Your task to perform on an android device: choose inbox layout in the gmail app Image 0: 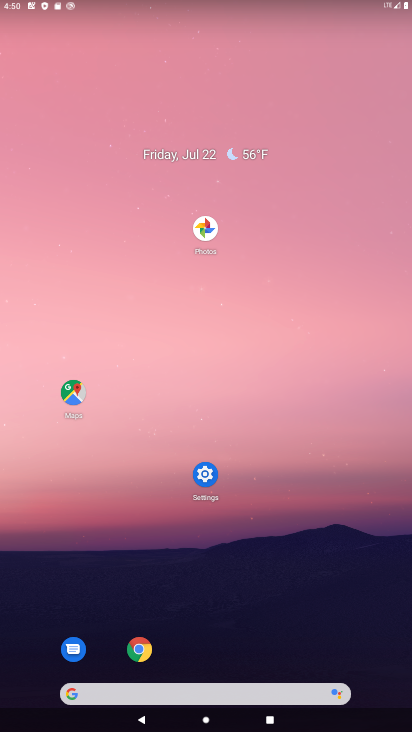
Step 0: drag from (264, 282) to (211, 151)
Your task to perform on an android device: choose inbox layout in the gmail app Image 1: 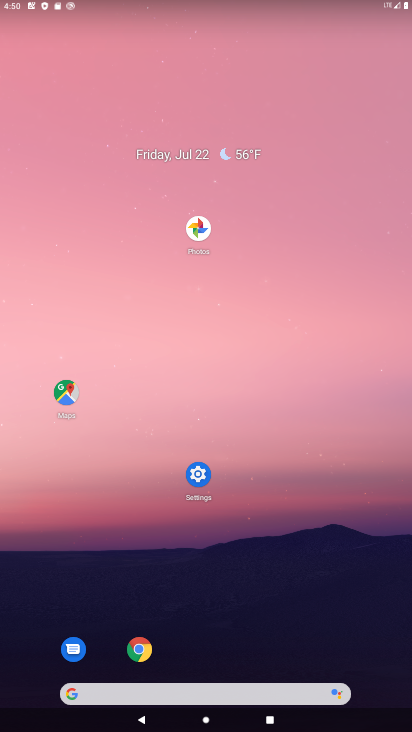
Step 1: drag from (218, 527) to (131, 45)
Your task to perform on an android device: choose inbox layout in the gmail app Image 2: 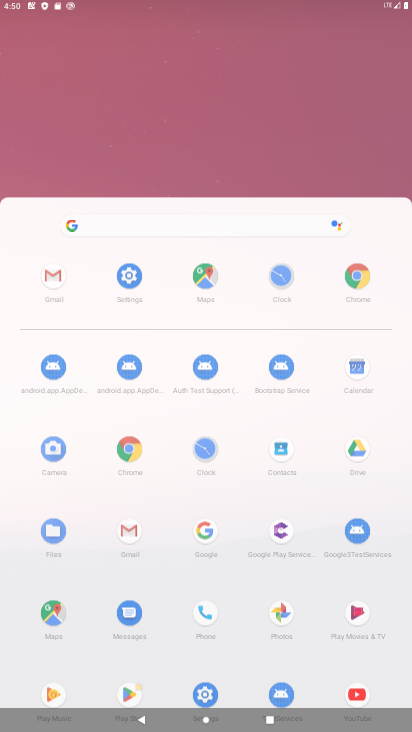
Step 2: drag from (206, 125) to (188, 1)
Your task to perform on an android device: choose inbox layout in the gmail app Image 3: 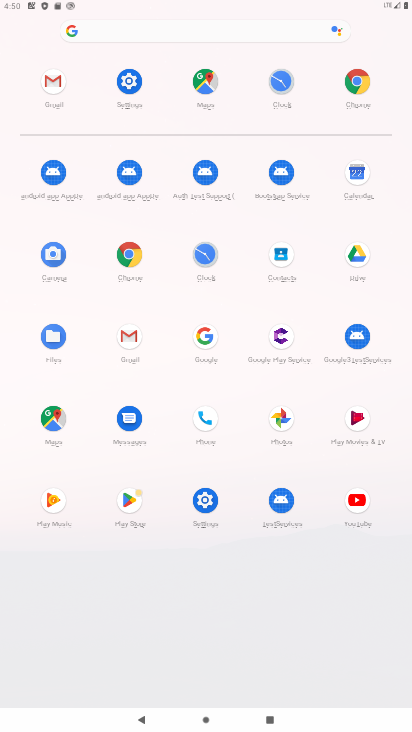
Step 3: drag from (246, 361) to (205, 5)
Your task to perform on an android device: choose inbox layout in the gmail app Image 4: 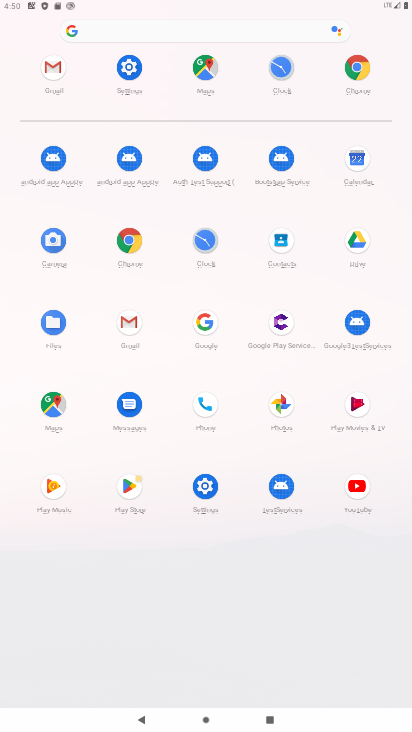
Step 4: drag from (262, 372) to (248, 15)
Your task to perform on an android device: choose inbox layout in the gmail app Image 5: 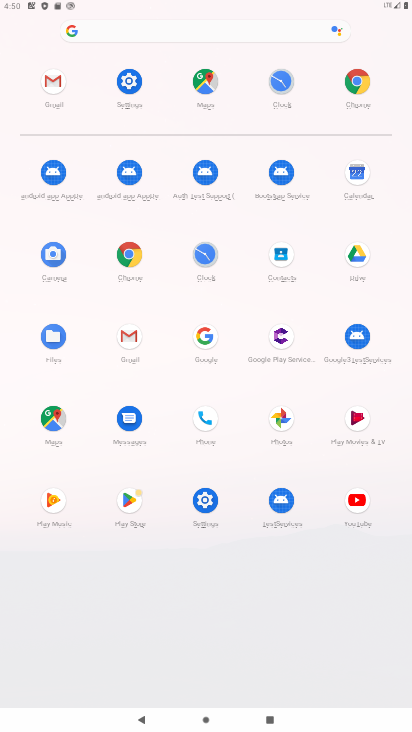
Step 5: click (129, 349)
Your task to perform on an android device: choose inbox layout in the gmail app Image 6: 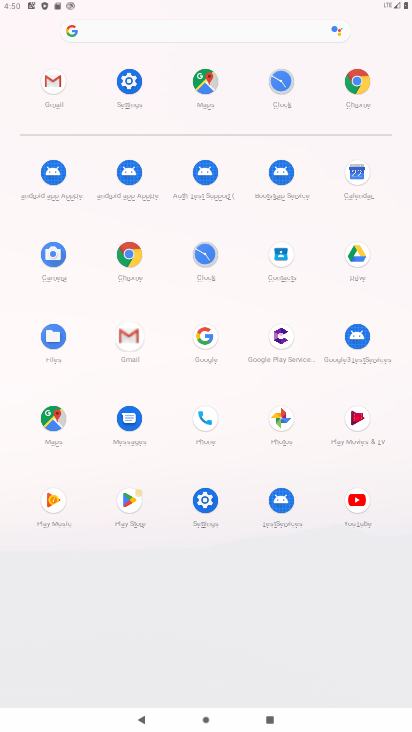
Step 6: click (129, 349)
Your task to perform on an android device: choose inbox layout in the gmail app Image 7: 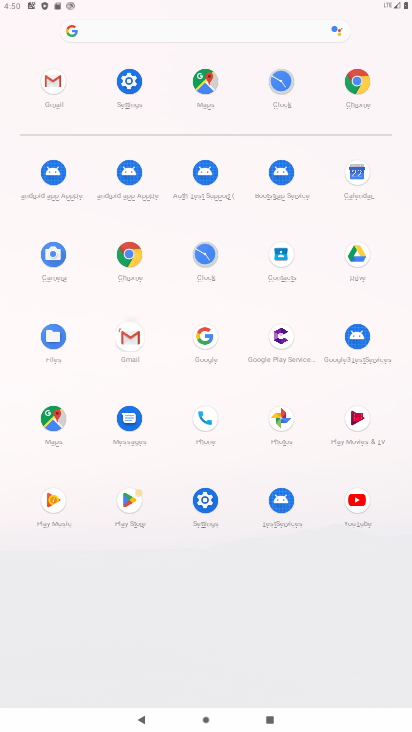
Step 7: click (129, 349)
Your task to perform on an android device: choose inbox layout in the gmail app Image 8: 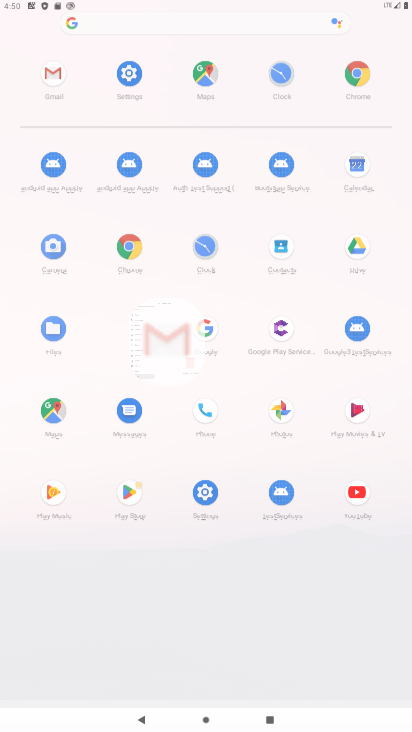
Step 8: click (128, 339)
Your task to perform on an android device: choose inbox layout in the gmail app Image 9: 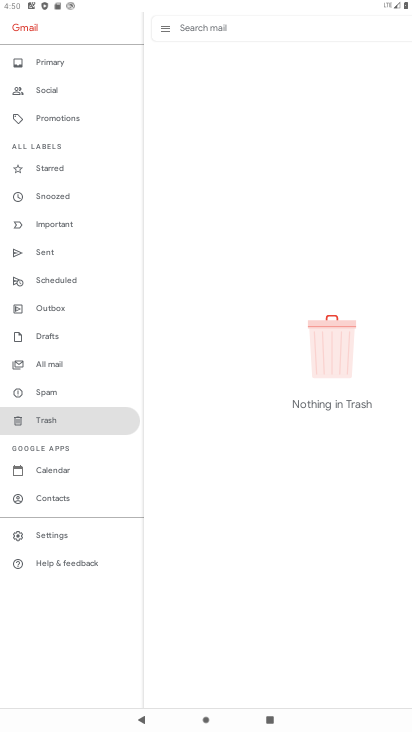
Step 9: click (128, 339)
Your task to perform on an android device: choose inbox layout in the gmail app Image 10: 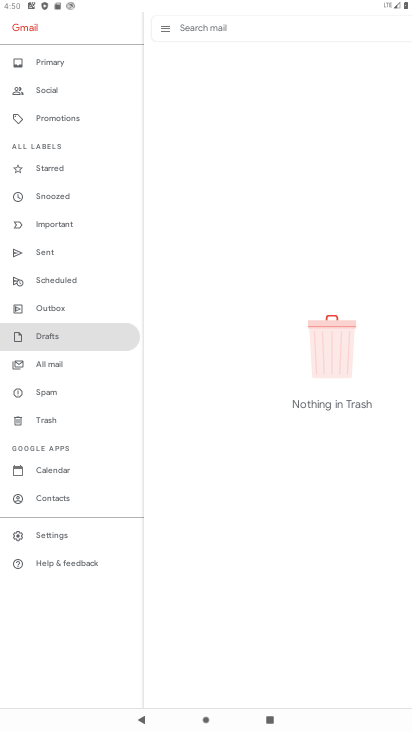
Step 10: click (128, 339)
Your task to perform on an android device: choose inbox layout in the gmail app Image 11: 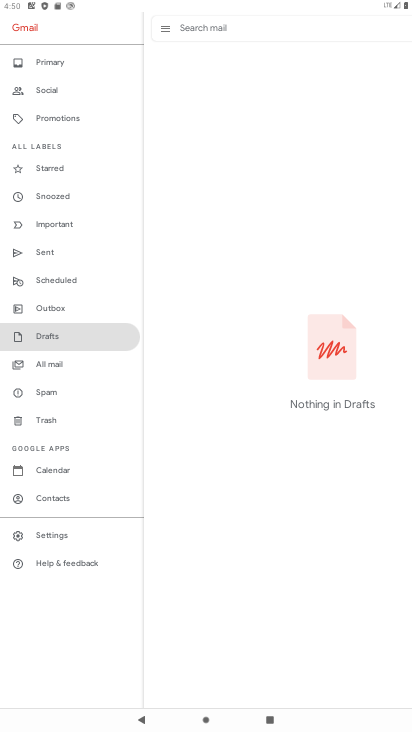
Step 11: click (49, 532)
Your task to perform on an android device: choose inbox layout in the gmail app Image 12: 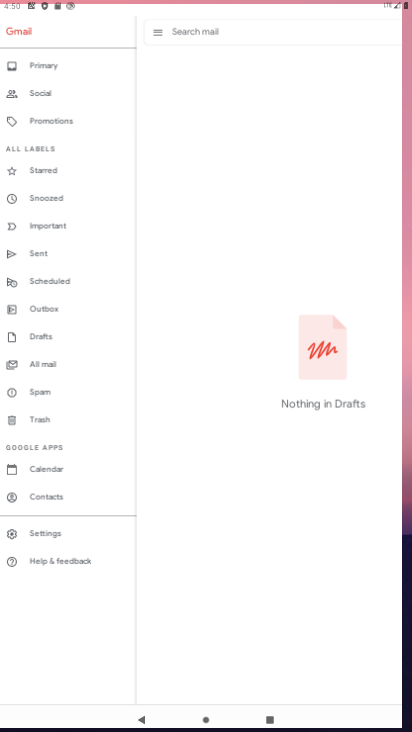
Step 12: click (48, 533)
Your task to perform on an android device: choose inbox layout in the gmail app Image 13: 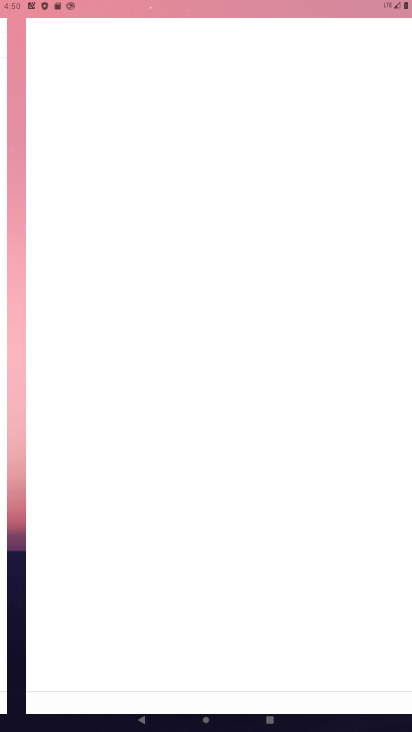
Step 13: click (48, 534)
Your task to perform on an android device: choose inbox layout in the gmail app Image 14: 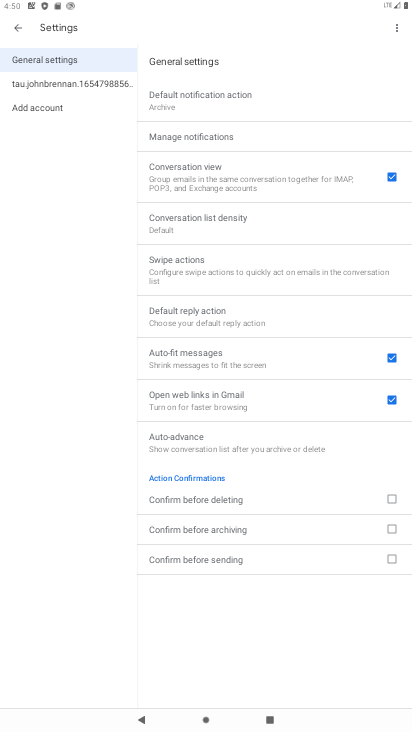
Step 14: click (53, 86)
Your task to perform on an android device: choose inbox layout in the gmail app Image 15: 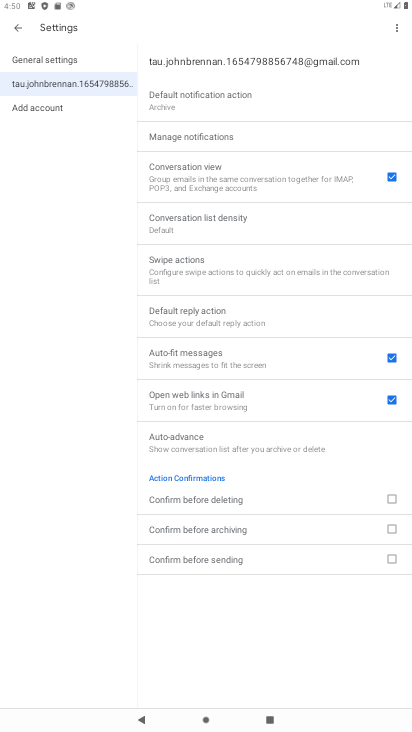
Step 15: click (53, 86)
Your task to perform on an android device: choose inbox layout in the gmail app Image 16: 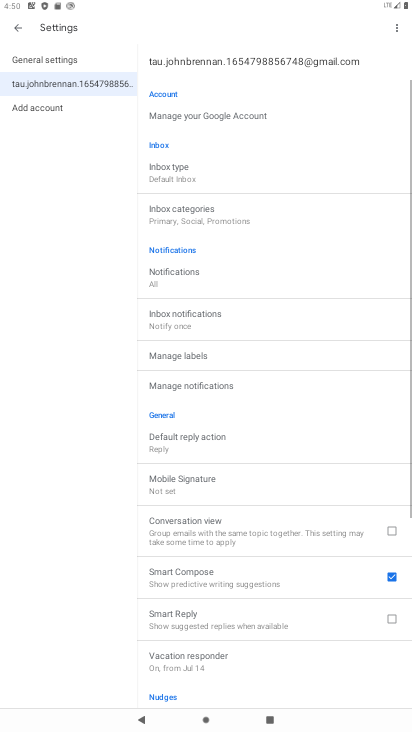
Step 16: click (53, 86)
Your task to perform on an android device: choose inbox layout in the gmail app Image 17: 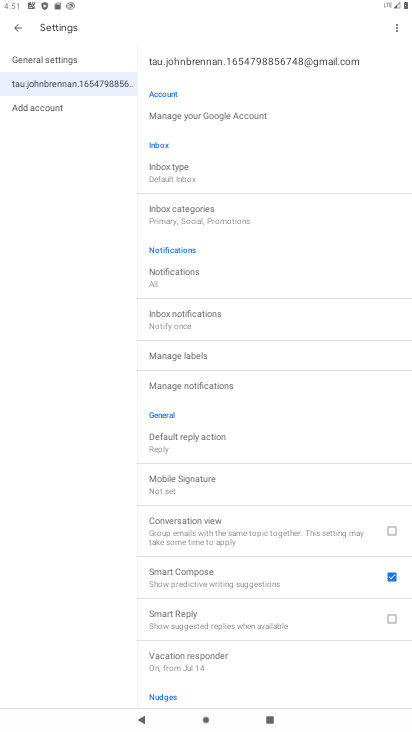
Step 17: click (185, 174)
Your task to perform on an android device: choose inbox layout in the gmail app Image 18: 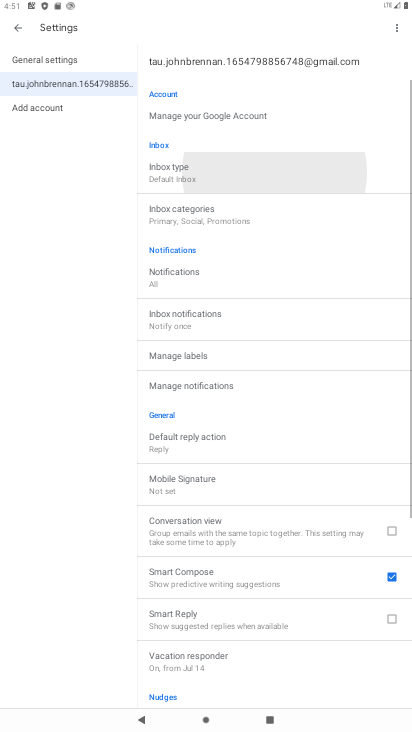
Step 18: click (185, 174)
Your task to perform on an android device: choose inbox layout in the gmail app Image 19: 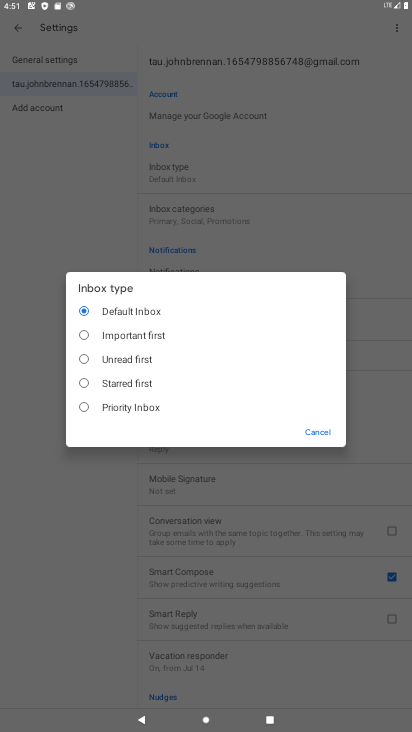
Step 19: task complete